Your task to perform on an android device: install app "Roku - Official Remote Control" Image 0: 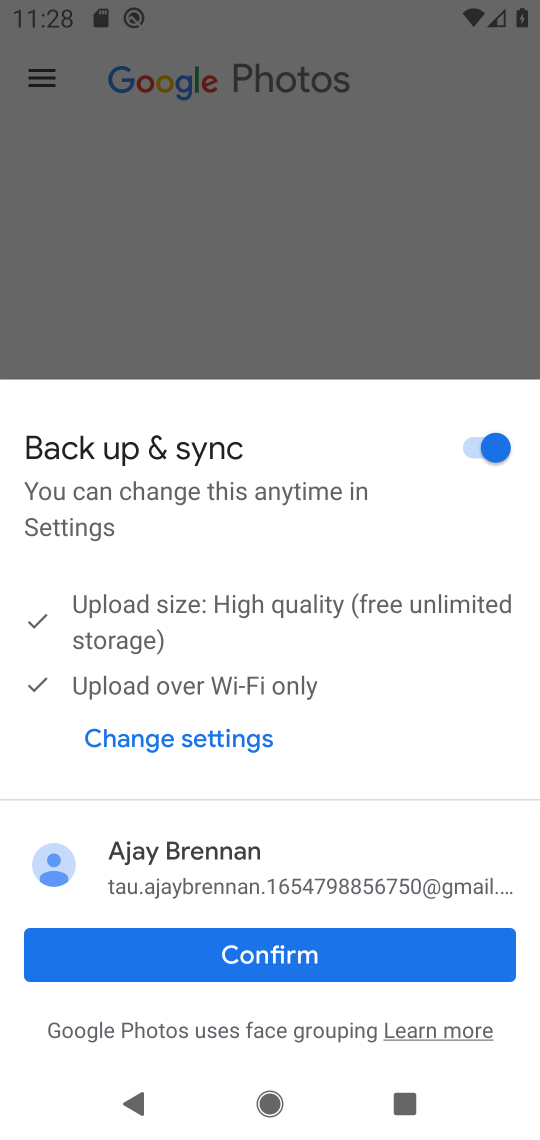
Step 0: press home button
Your task to perform on an android device: install app "Roku - Official Remote Control" Image 1: 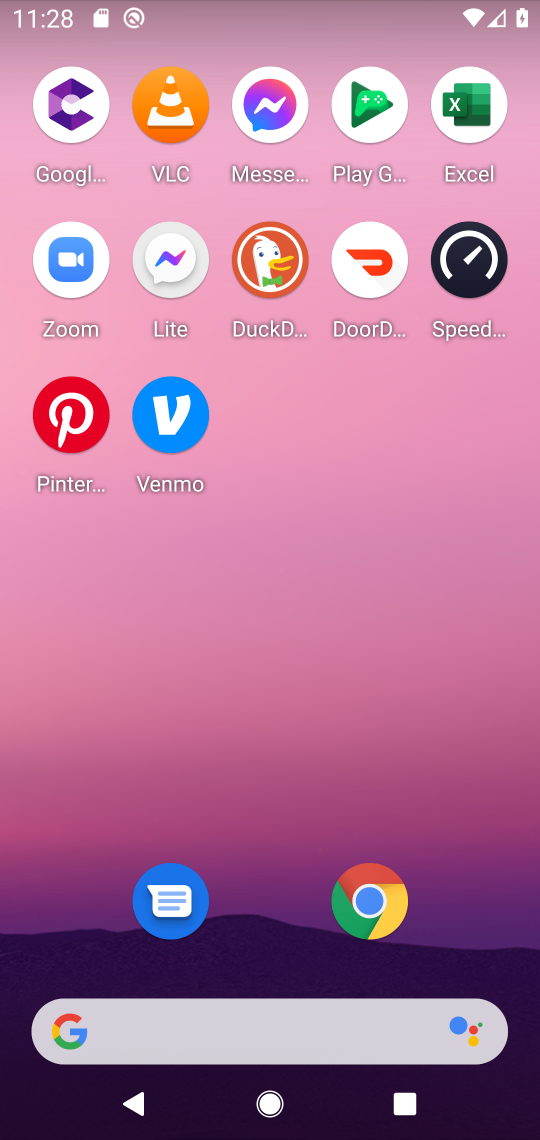
Step 1: drag from (276, 971) to (327, 48)
Your task to perform on an android device: install app "Roku - Official Remote Control" Image 2: 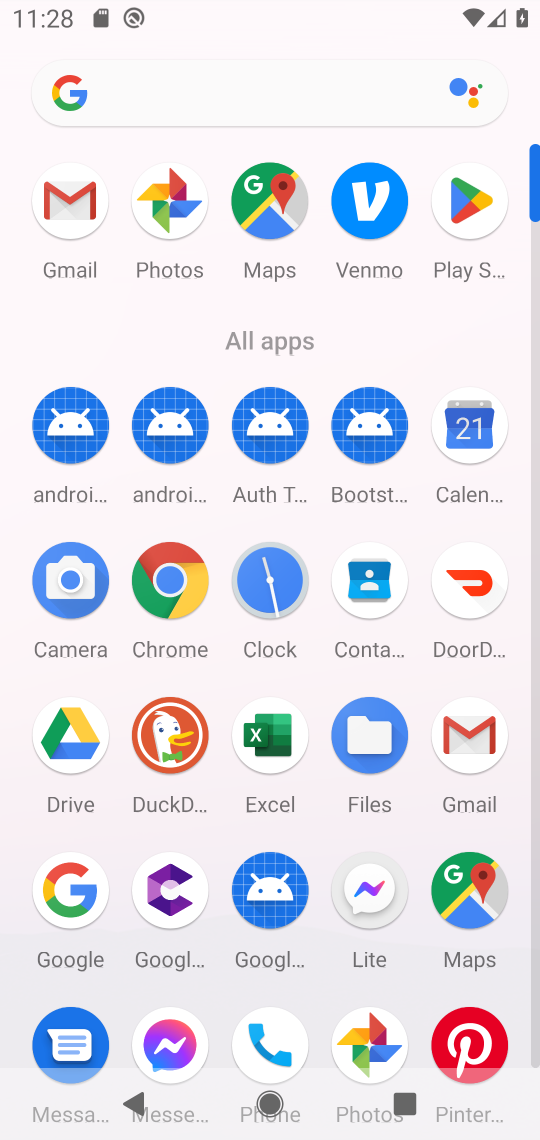
Step 2: click (455, 206)
Your task to perform on an android device: install app "Roku - Official Remote Control" Image 3: 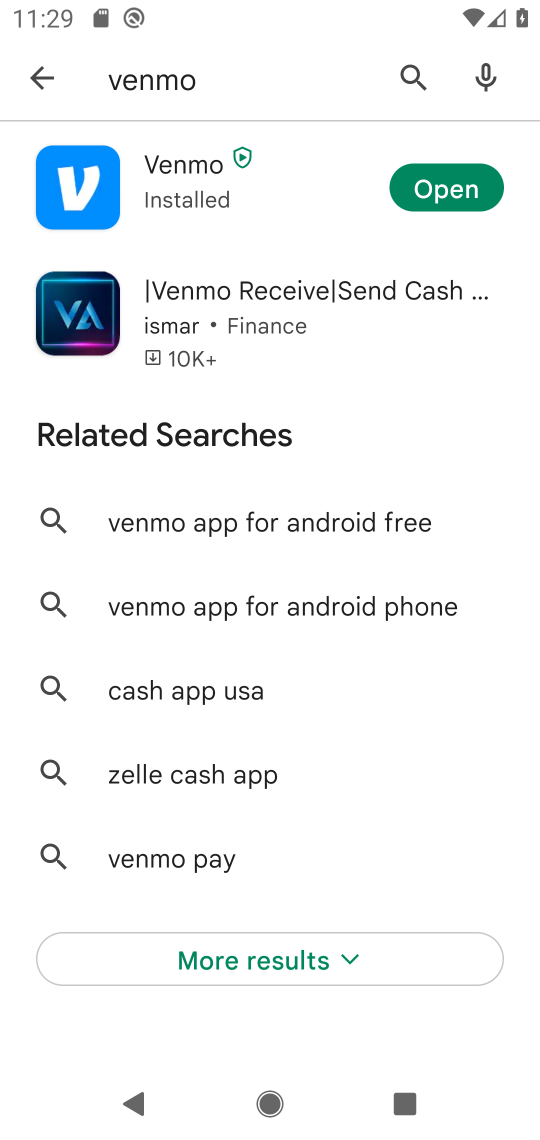
Step 3: click (407, 98)
Your task to perform on an android device: install app "Roku - Official Remote Control" Image 4: 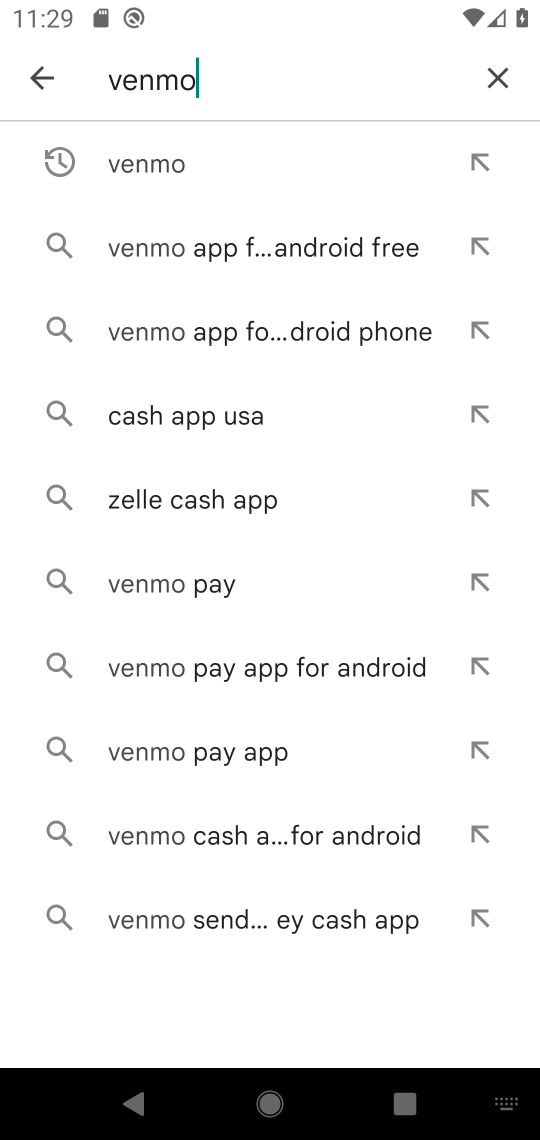
Step 4: click (478, 90)
Your task to perform on an android device: install app "Roku - Official Remote Control" Image 5: 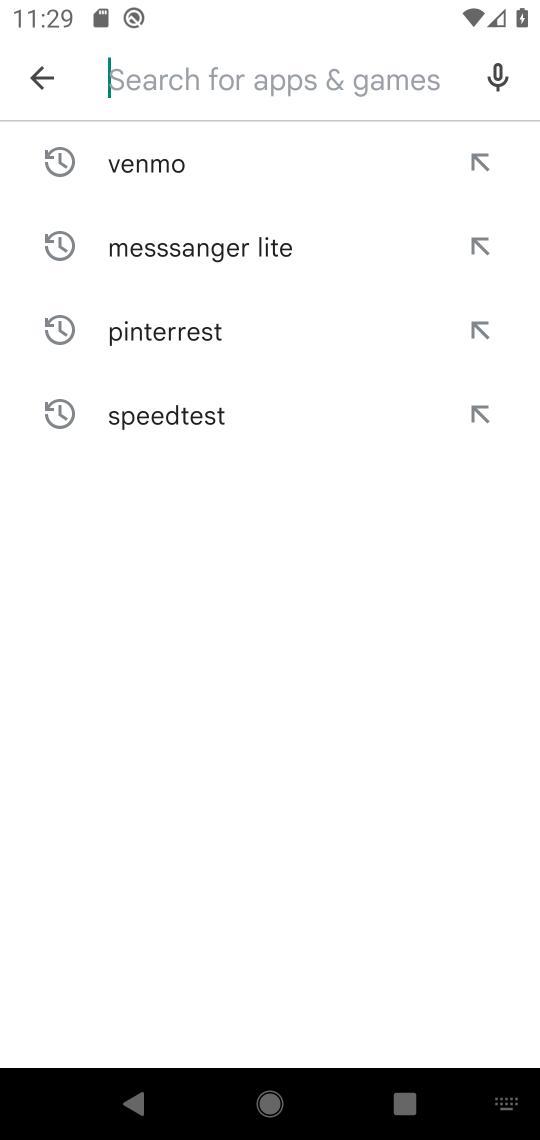
Step 5: type "roku"
Your task to perform on an android device: install app "Roku - Official Remote Control" Image 6: 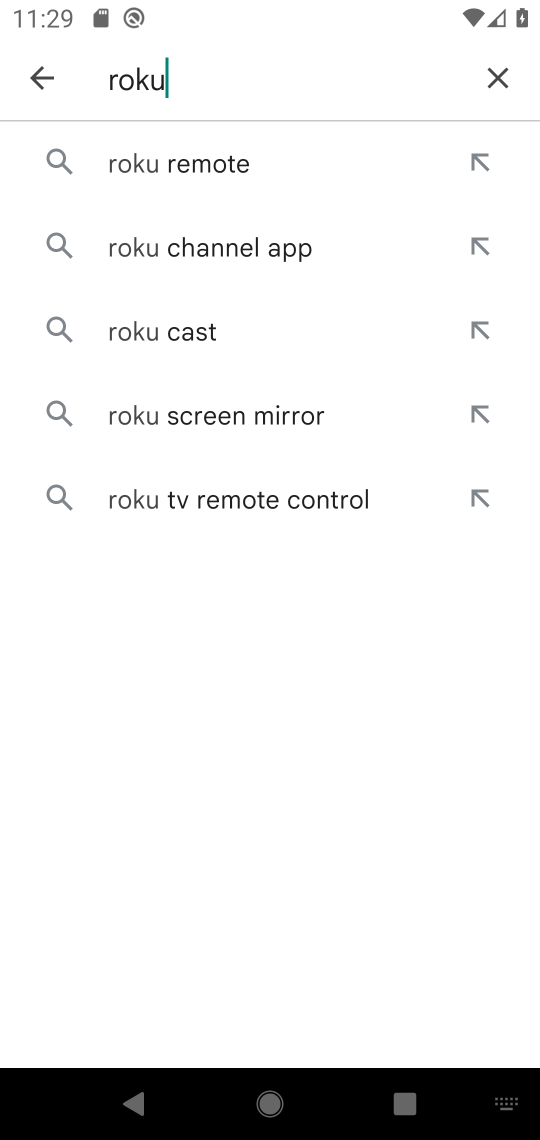
Step 6: click (244, 161)
Your task to perform on an android device: install app "Roku - Official Remote Control" Image 7: 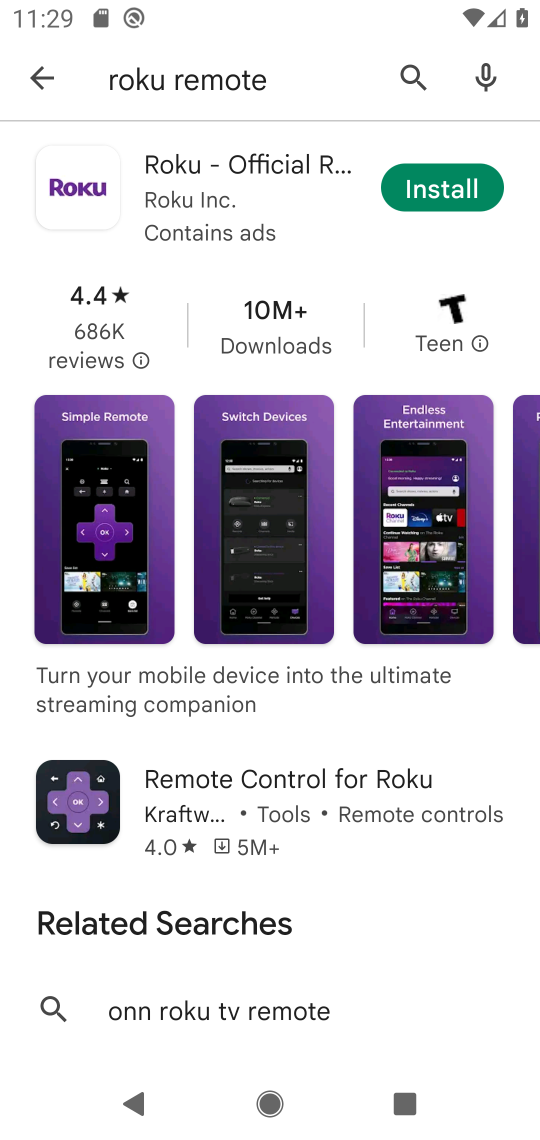
Step 7: click (439, 172)
Your task to perform on an android device: install app "Roku - Official Remote Control" Image 8: 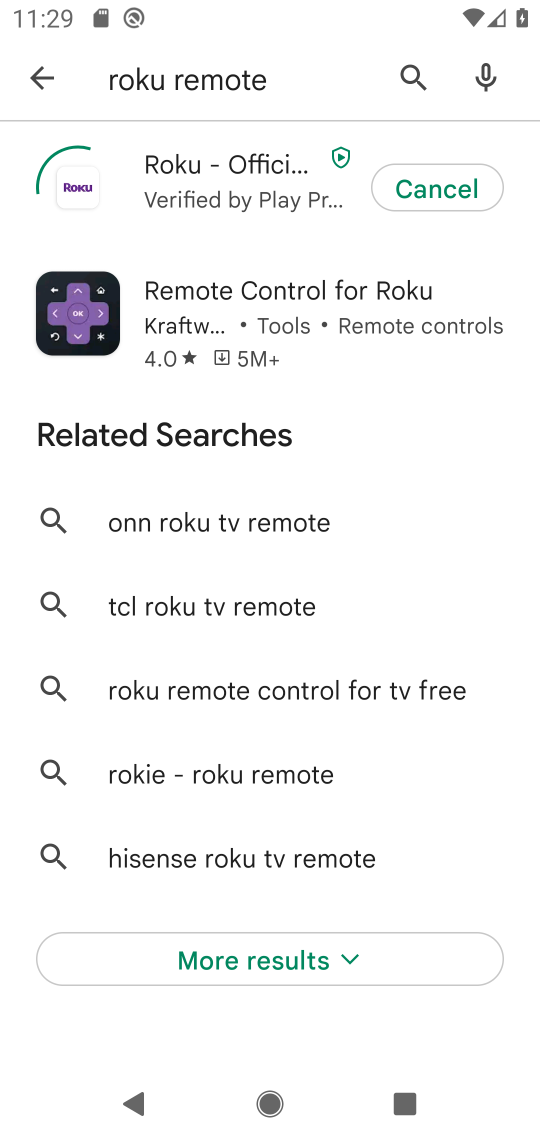
Step 8: task complete